Your task to perform on an android device: turn off picture-in-picture Image 0: 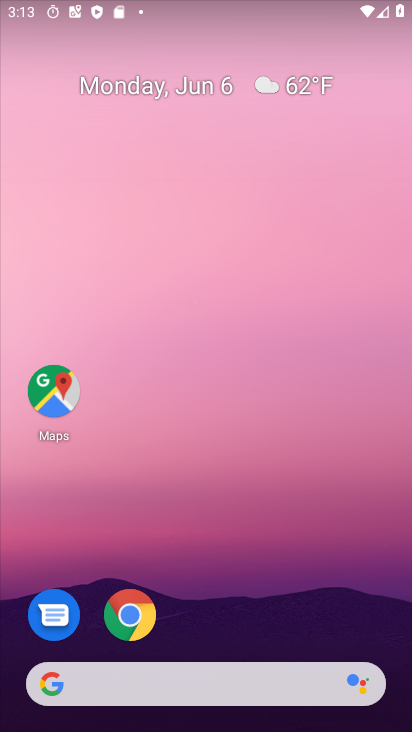
Step 0: drag from (164, 667) to (191, 150)
Your task to perform on an android device: turn off picture-in-picture Image 1: 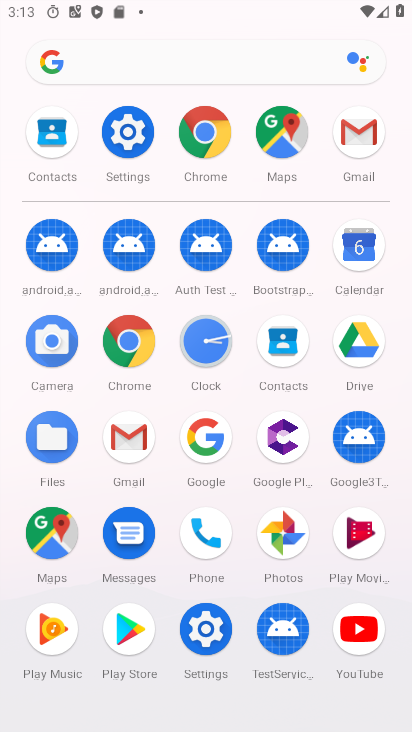
Step 1: click (128, 130)
Your task to perform on an android device: turn off picture-in-picture Image 2: 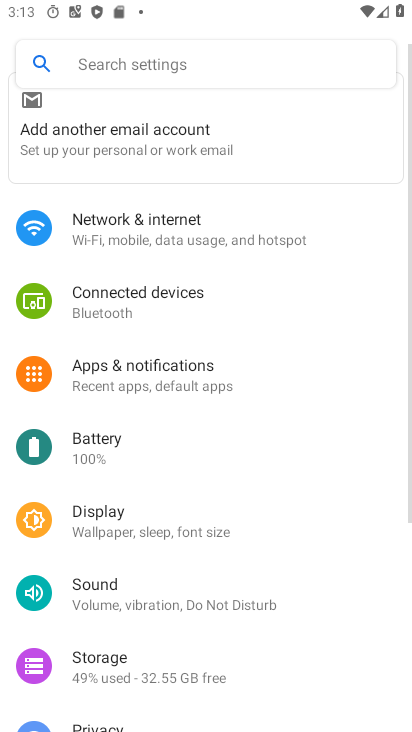
Step 2: drag from (219, 690) to (217, 38)
Your task to perform on an android device: turn off picture-in-picture Image 3: 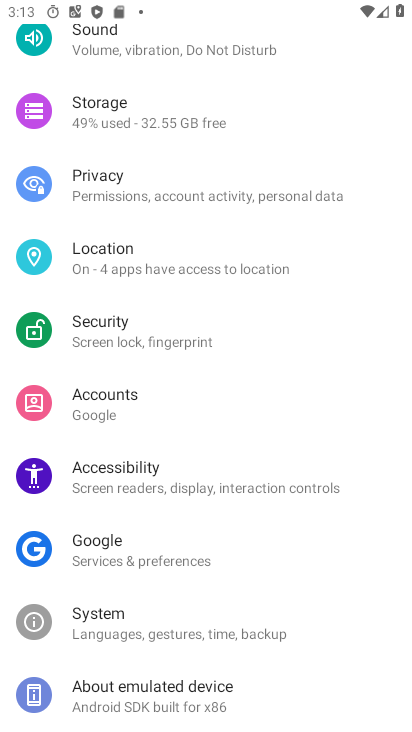
Step 3: click (186, 697)
Your task to perform on an android device: turn off picture-in-picture Image 4: 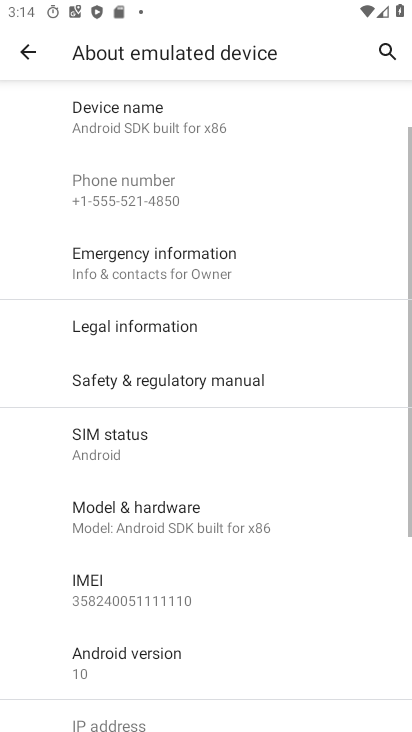
Step 4: drag from (169, 715) to (177, 286)
Your task to perform on an android device: turn off picture-in-picture Image 5: 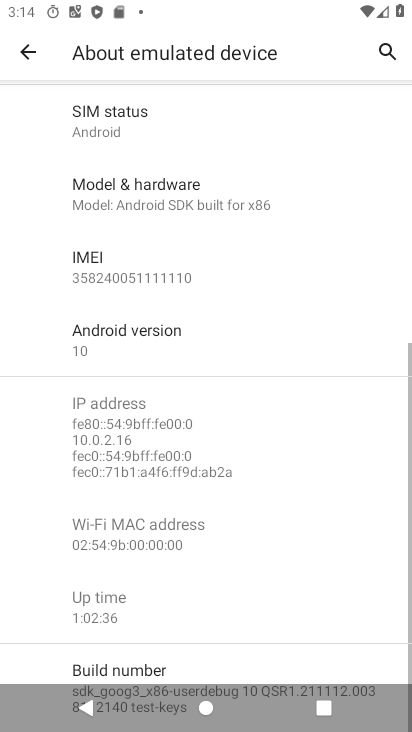
Step 5: press home button
Your task to perform on an android device: turn off picture-in-picture Image 6: 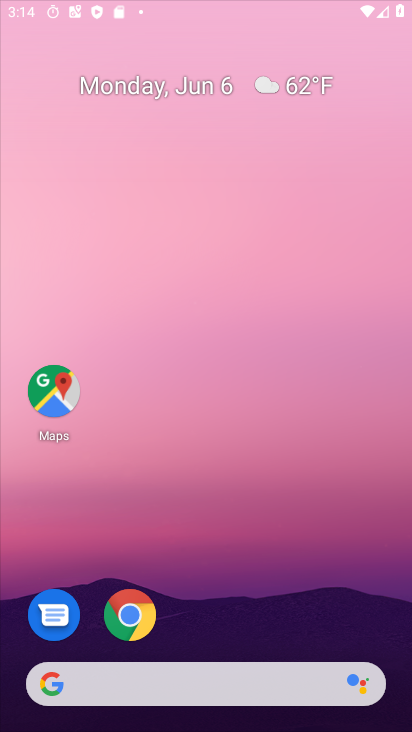
Step 6: drag from (215, 676) to (212, 83)
Your task to perform on an android device: turn off picture-in-picture Image 7: 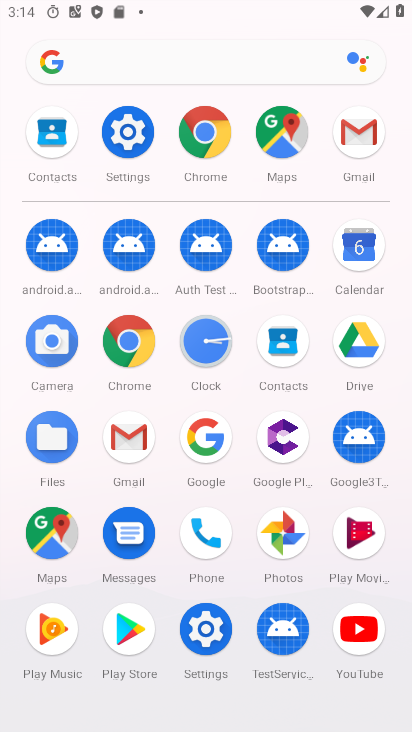
Step 7: click (133, 138)
Your task to perform on an android device: turn off picture-in-picture Image 8: 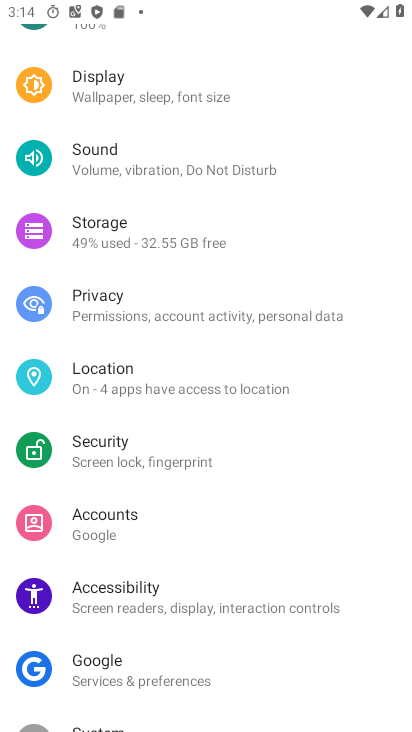
Step 8: drag from (183, 219) to (167, 619)
Your task to perform on an android device: turn off picture-in-picture Image 9: 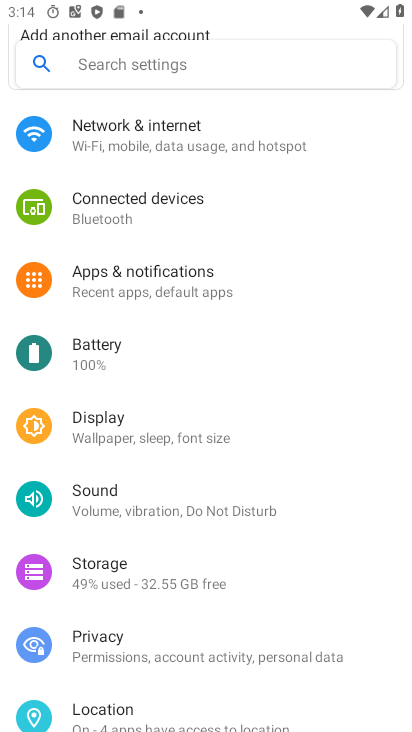
Step 9: click (183, 295)
Your task to perform on an android device: turn off picture-in-picture Image 10: 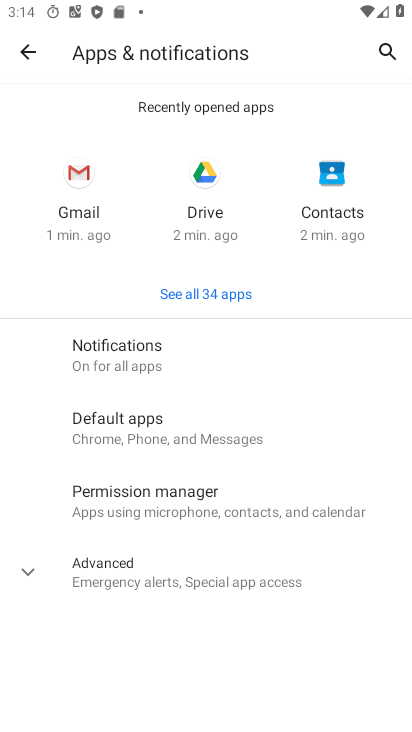
Step 10: click (129, 580)
Your task to perform on an android device: turn off picture-in-picture Image 11: 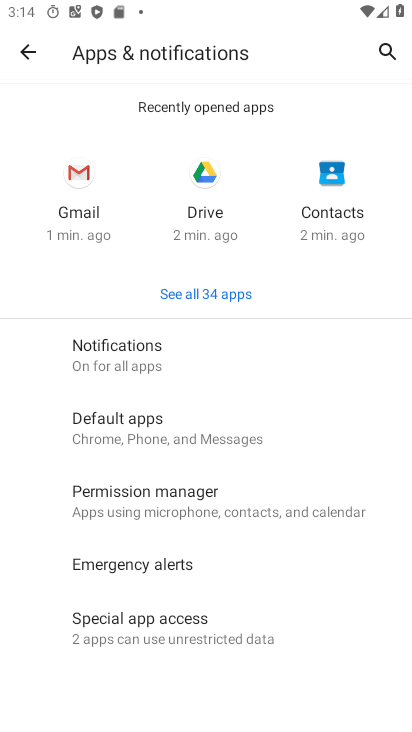
Step 11: click (162, 638)
Your task to perform on an android device: turn off picture-in-picture Image 12: 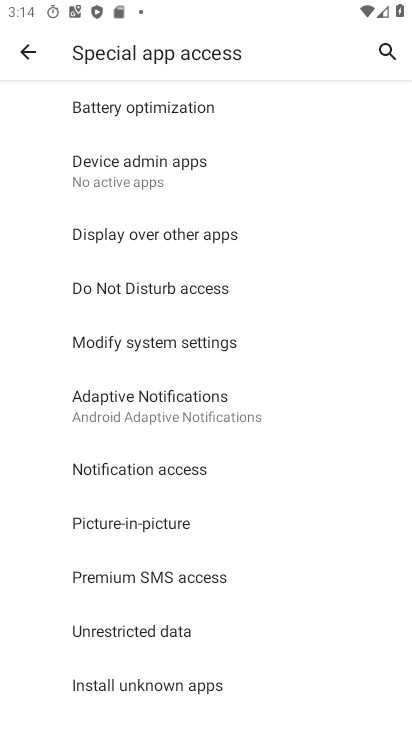
Step 12: click (150, 515)
Your task to perform on an android device: turn off picture-in-picture Image 13: 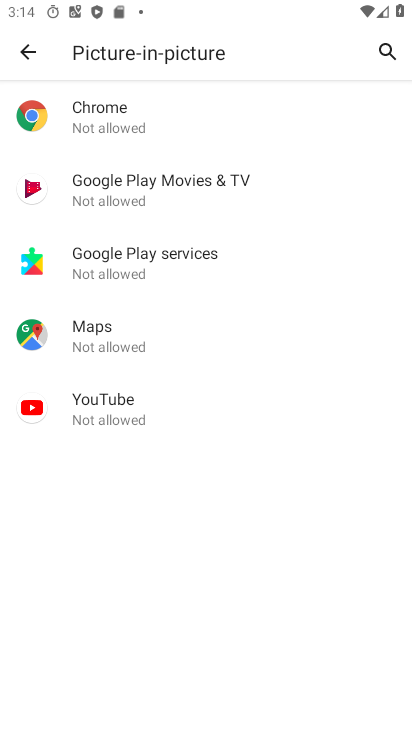
Step 13: task complete